Your task to perform on an android device: remove spam from my inbox in the gmail app Image 0: 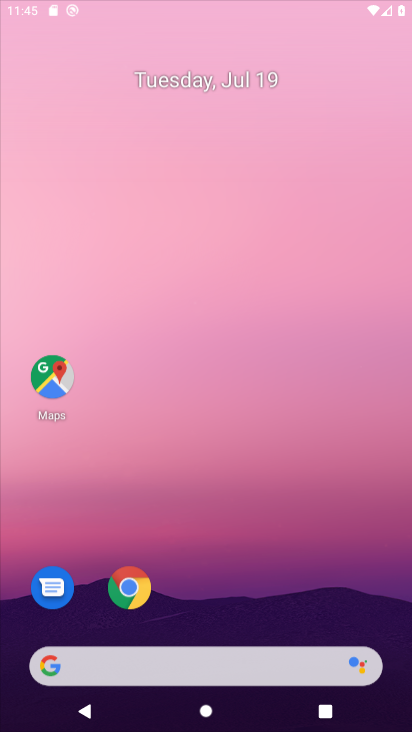
Step 0: click (238, 666)
Your task to perform on an android device: remove spam from my inbox in the gmail app Image 1: 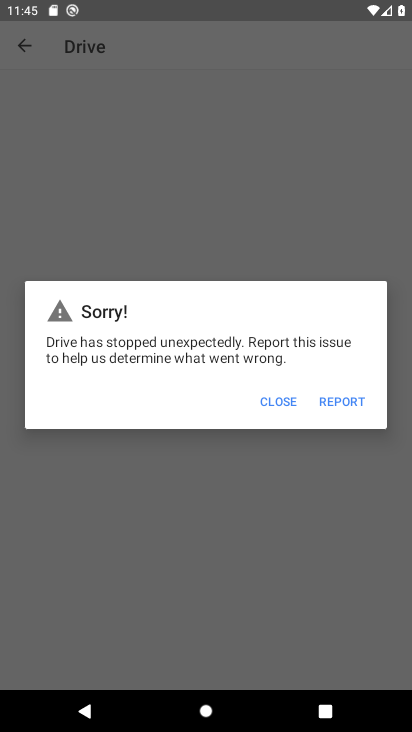
Step 1: press home button
Your task to perform on an android device: remove spam from my inbox in the gmail app Image 2: 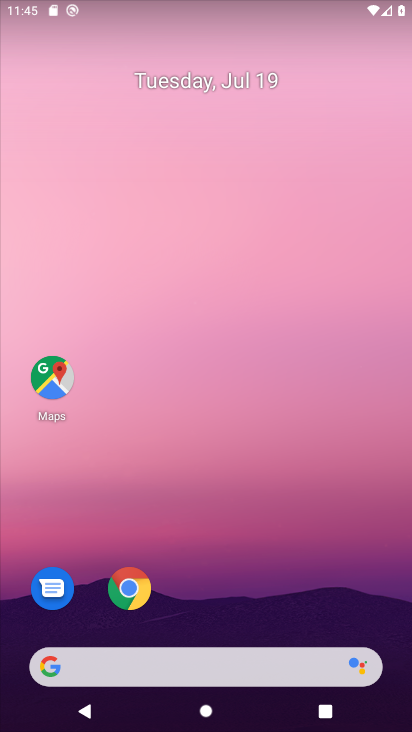
Step 2: drag from (211, 608) to (314, 0)
Your task to perform on an android device: remove spam from my inbox in the gmail app Image 3: 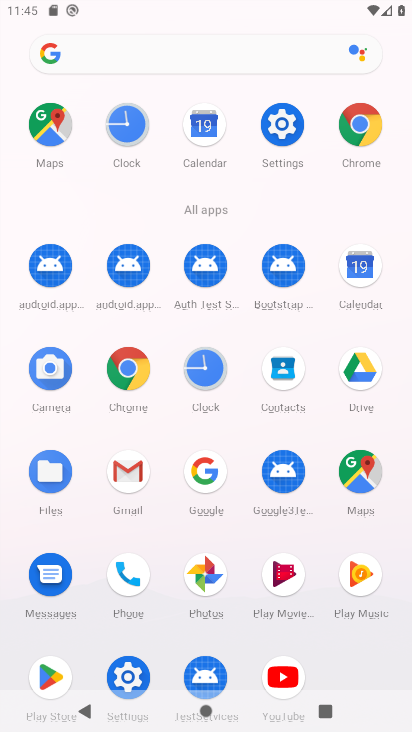
Step 3: click (130, 478)
Your task to perform on an android device: remove spam from my inbox in the gmail app Image 4: 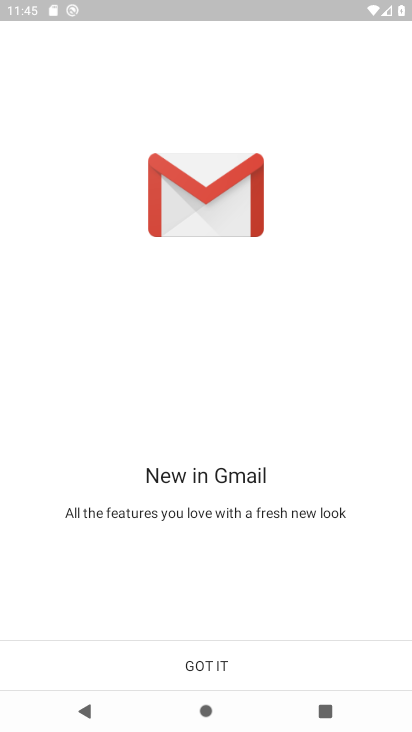
Step 4: click (219, 676)
Your task to perform on an android device: remove spam from my inbox in the gmail app Image 5: 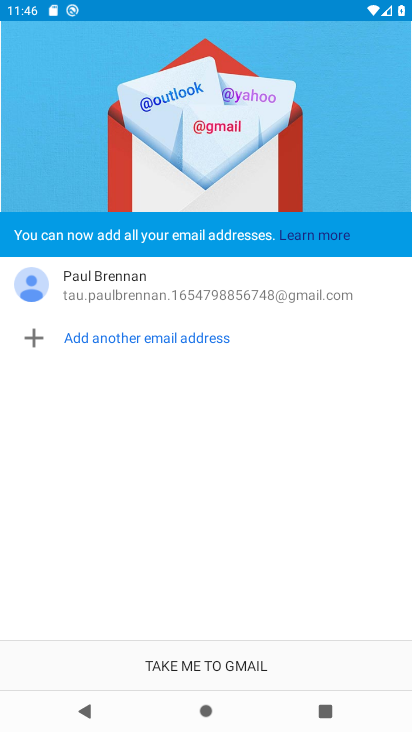
Step 5: click (223, 665)
Your task to perform on an android device: remove spam from my inbox in the gmail app Image 6: 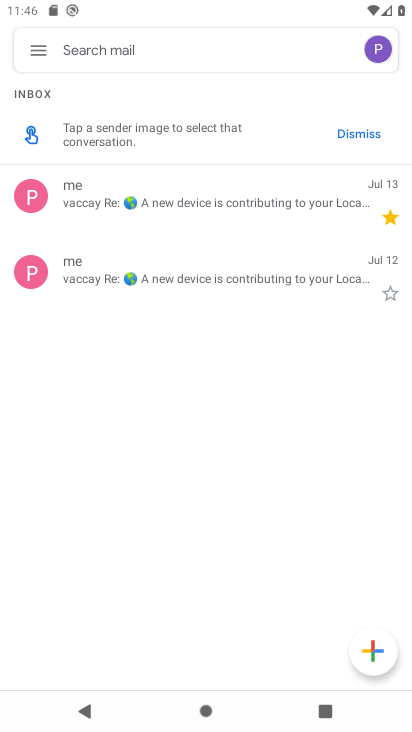
Step 6: click (28, 44)
Your task to perform on an android device: remove spam from my inbox in the gmail app Image 7: 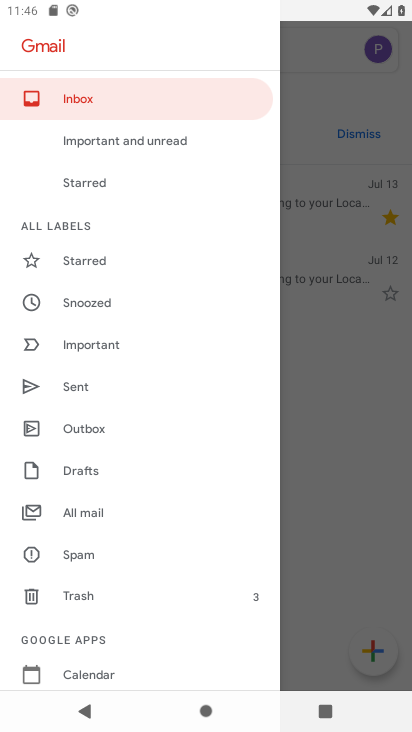
Step 7: click (97, 551)
Your task to perform on an android device: remove spam from my inbox in the gmail app Image 8: 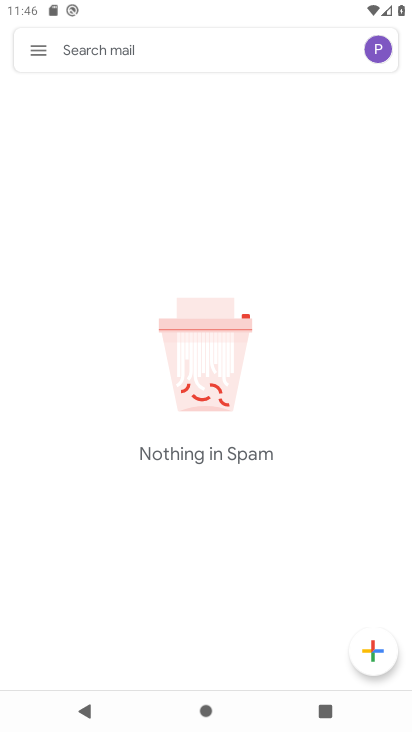
Step 8: task complete